Your task to perform on an android device: check out phone information Image 0: 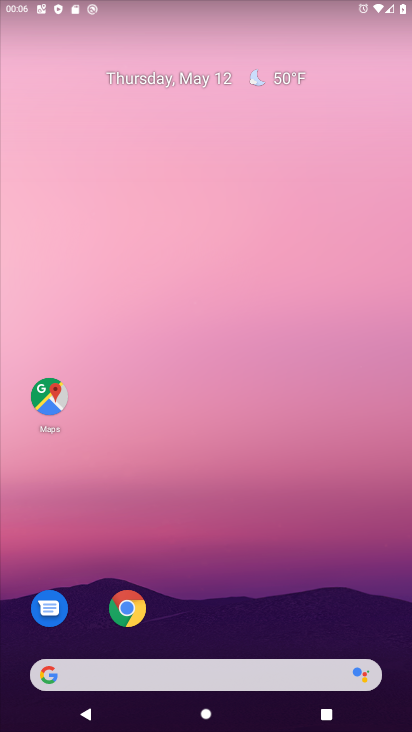
Step 0: drag from (233, 591) to (292, 41)
Your task to perform on an android device: check out phone information Image 1: 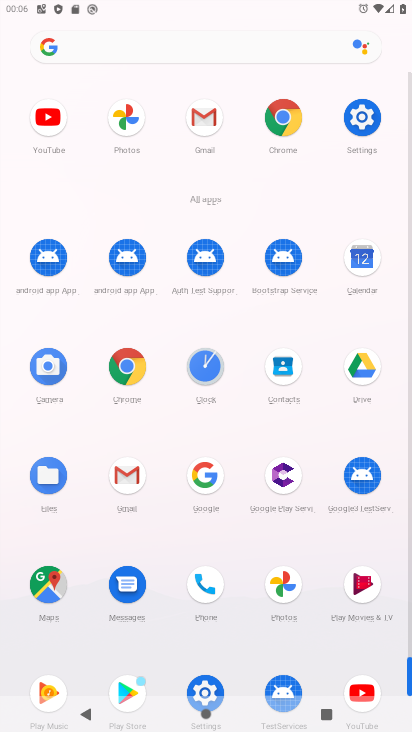
Step 1: click (362, 116)
Your task to perform on an android device: check out phone information Image 2: 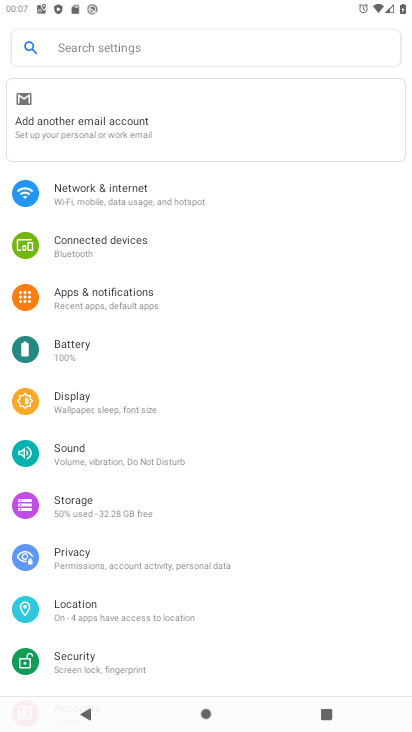
Step 2: drag from (109, 584) to (193, 473)
Your task to perform on an android device: check out phone information Image 3: 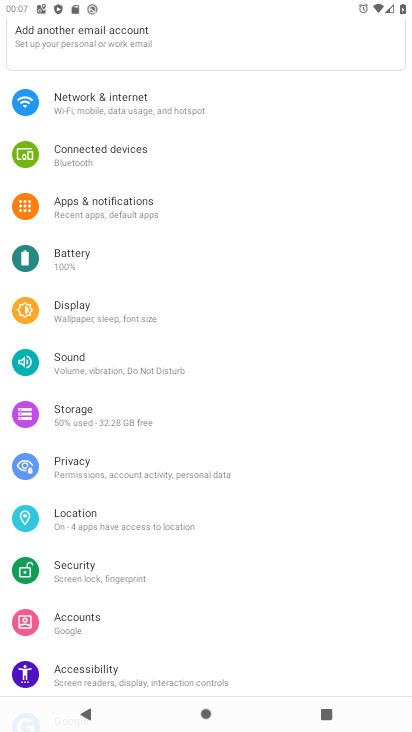
Step 3: drag from (137, 611) to (228, 450)
Your task to perform on an android device: check out phone information Image 4: 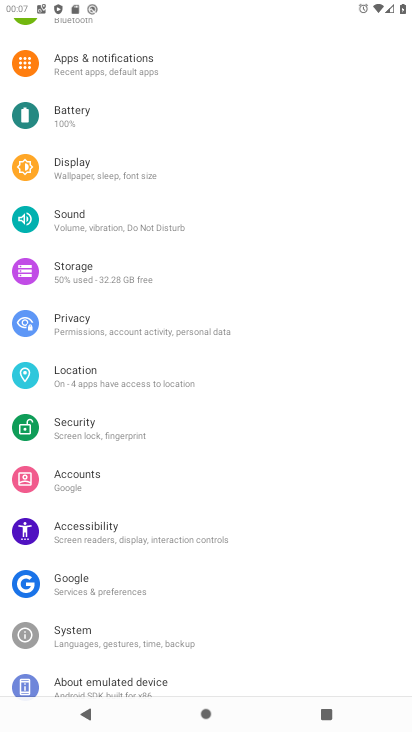
Step 4: drag from (140, 615) to (239, 482)
Your task to perform on an android device: check out phone information Image 5: 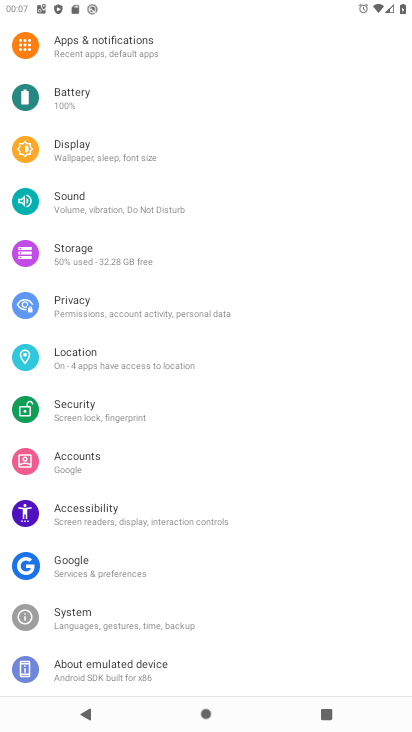
Step 5: click (115, 671)
Your task to perform on an android device: check out phone information Image 6: 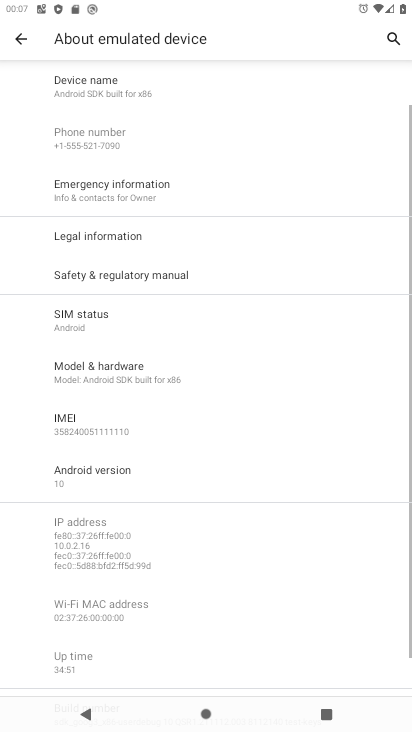
Step 6: task complete